Your task to perform on an android device: toggle notifications settings in the gmail app Image 0: 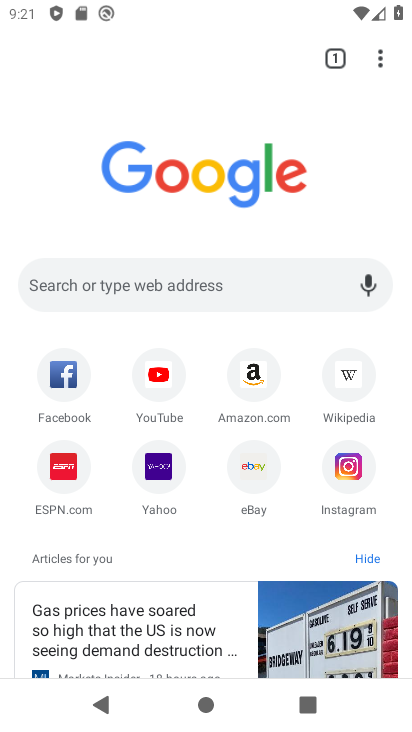
Step 0: press home button
Your task to perform on an android device: toggle notifications settings in the gmail app Image 1: 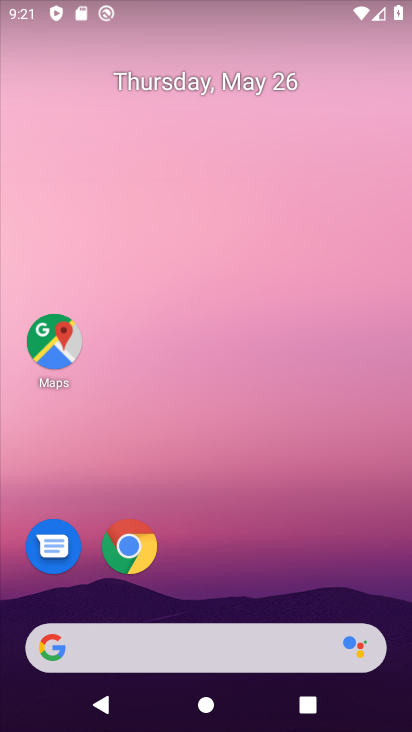
Step 1: drag from (333, 583) to (333, 147)
Your task to perform on an android device: toggle notifications settings in the gmail app Image 2: 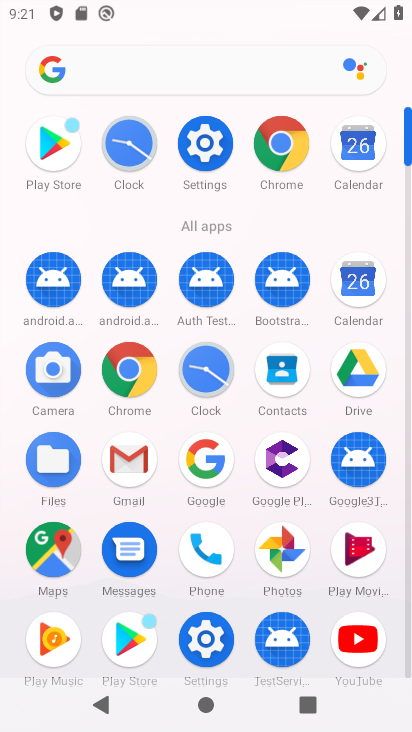
Step 2: click (104, 485)
Your task to perform on an android device: toggle notifications settings in the gmail app Image 3: 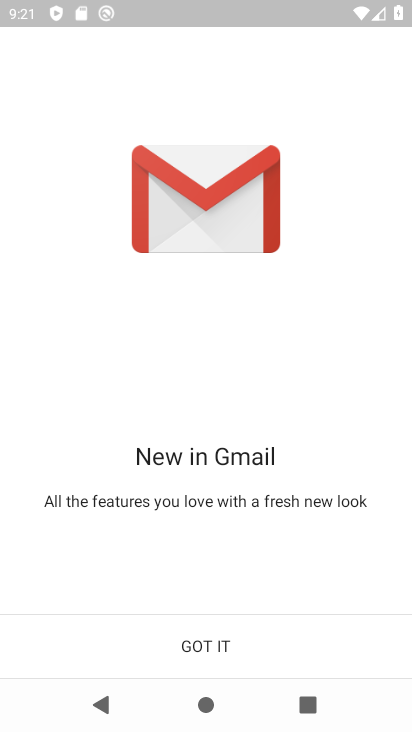
Step 3: click (233, 649)
Your task to perform on an android device: toggle notifications settings in the gmail app Image 4: 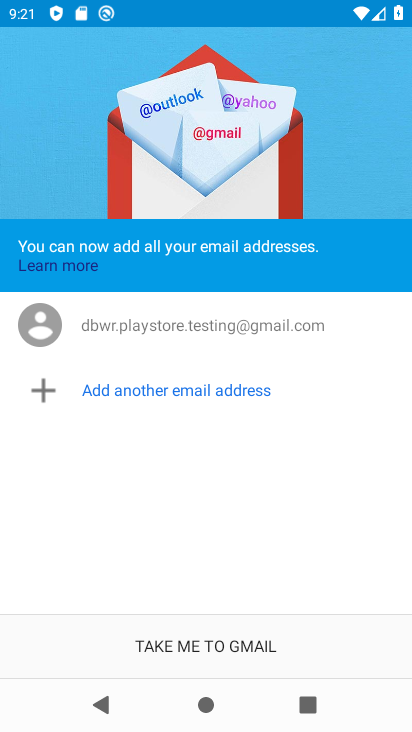
Step 4: click (232, 648)
Your task to perform on an android device: toggle notifications settings in the gmail app Image 5: 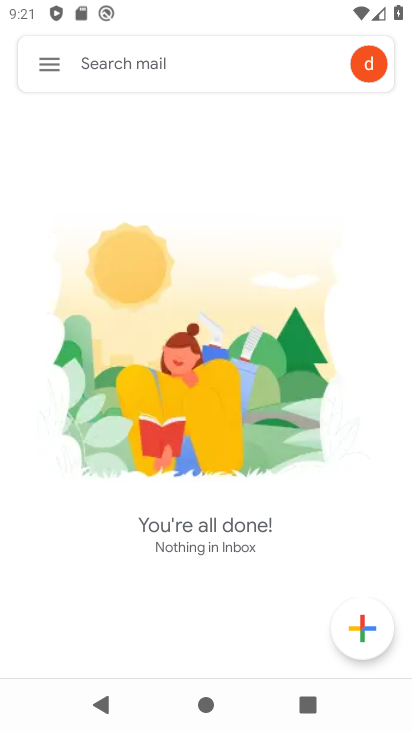
Step 5: click (56, 61)
Your task to perform on an android device: toggle notifications settings in the gmail app Image 6: 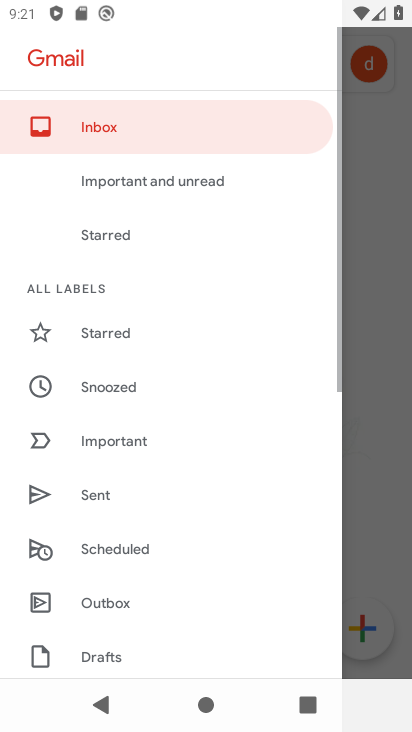
Step 6: drag from (163, 600) to (160, 295)
Your task to perform on an android device: toggle notifications settings in the gmail app Image 7: 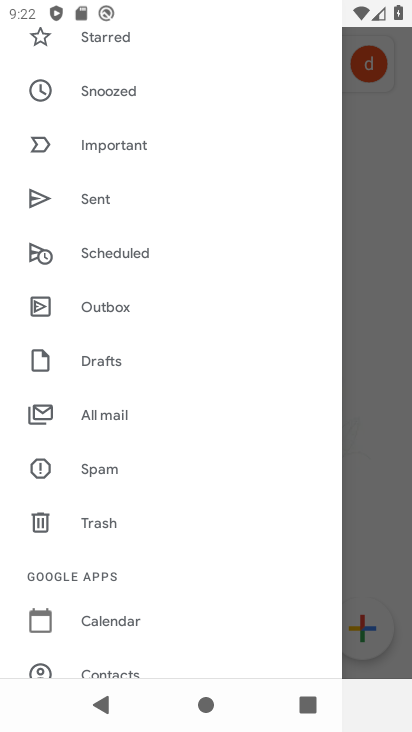
Step 7: drag from (146, 632) to (178, 356)
Your task to perform on an android device: toggle notifications settings in the gmail app Image 8: 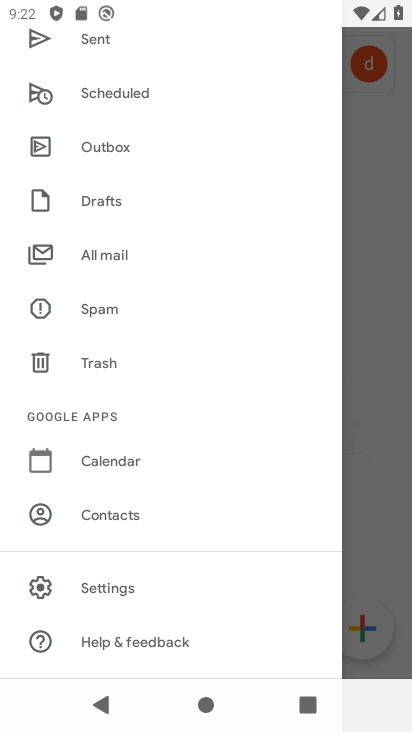
Step 8: click (147, 587)
Your task to perform on an android device: toggle notifications settings in the gmail app Image 9: 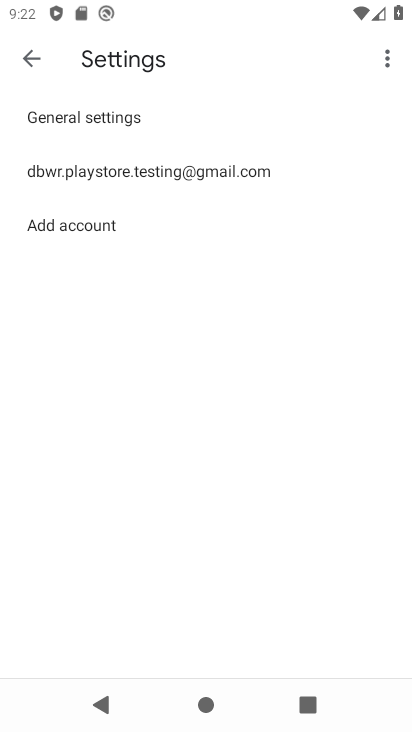
Step 9: click (127, 168)
Your task to perform on an android device: toggle notifications settings in the gmail app Image 10: 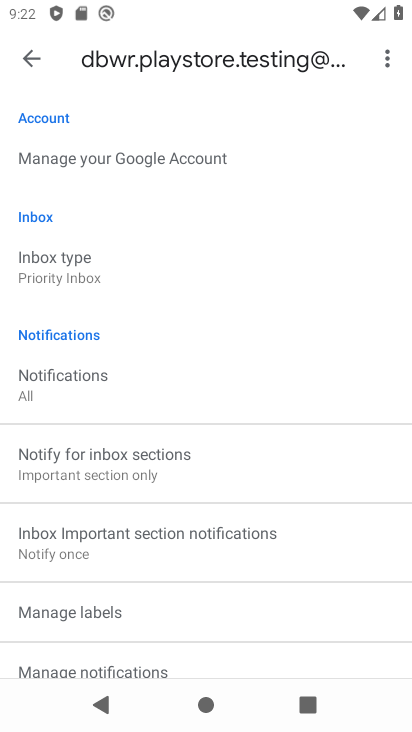
Step 10: drag from (324, 599) to (336, 384)
Your task to perform on an android device: toggle notifications settings in the gmail app Image 11: 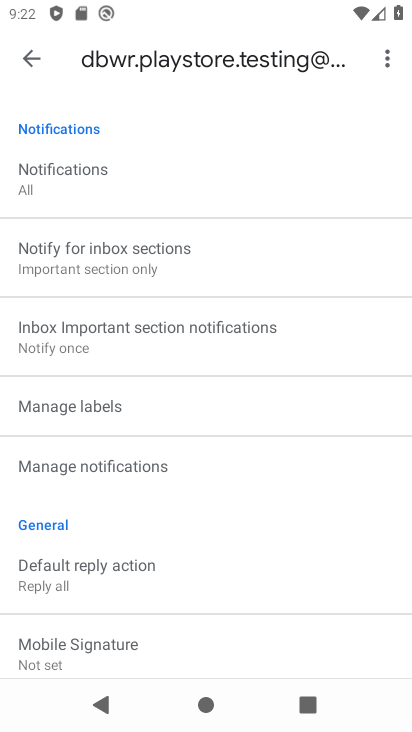
Step 11: click (97, 183)
Your task to perform on an android device: toggle notifications settings in the gmail app Image 12: 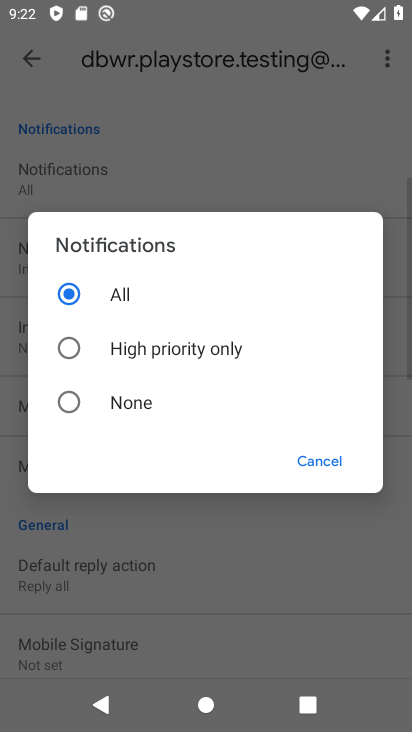
Step 12: click (72, 413)
Your task to perform on an android device: toggle notifications settings in the gmail app Image 13: 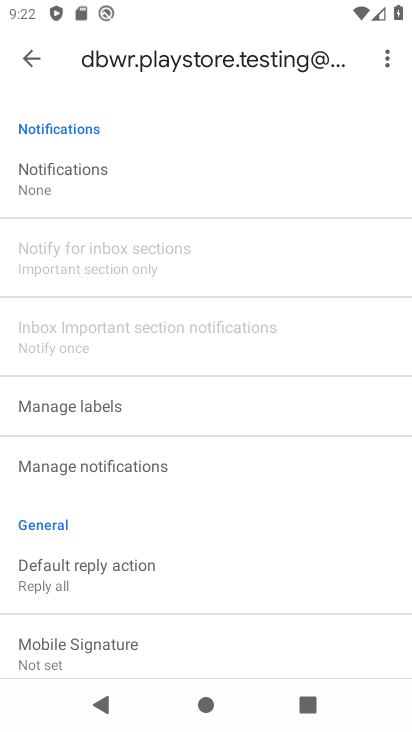
Step 13: task complete